Your task to perform on an android device: Open sound settings Image 0: 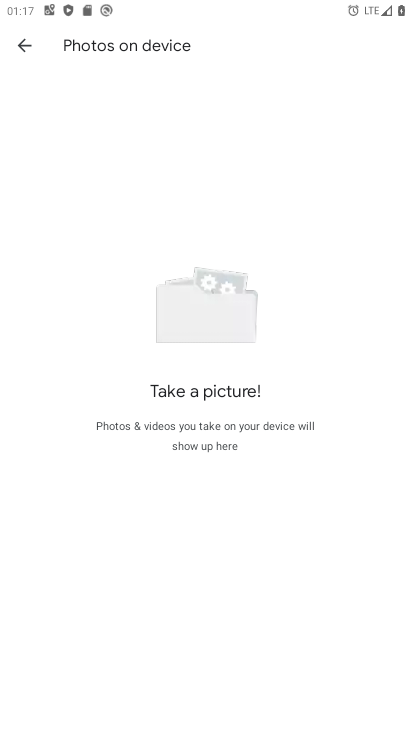
Step 0: press home button
Your task to perform on an android device: Open sound settings Image 1: 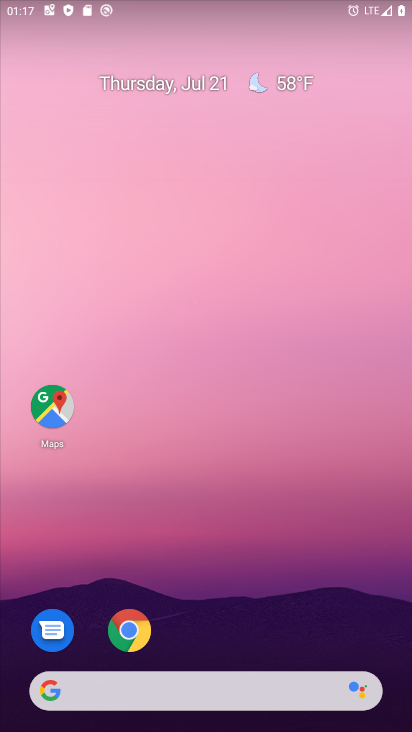
Step 1: drag from (271, 433) to (371, 6)
Your task to perform on an android device: Open sound settings Image 2: 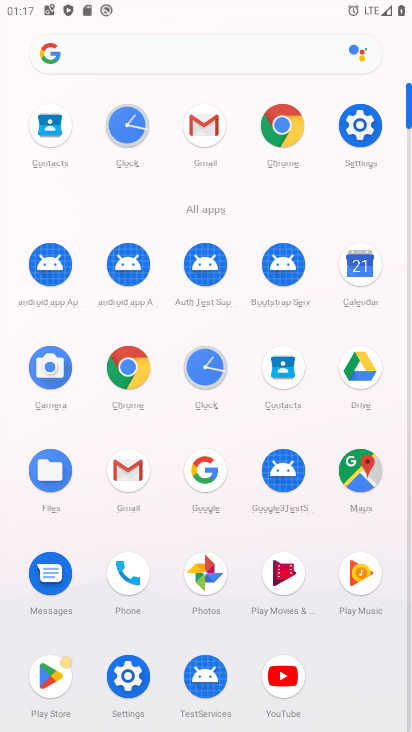
Step 2: click (362, 144)
Your task to perform on an android device: Open sound settings Image 3: 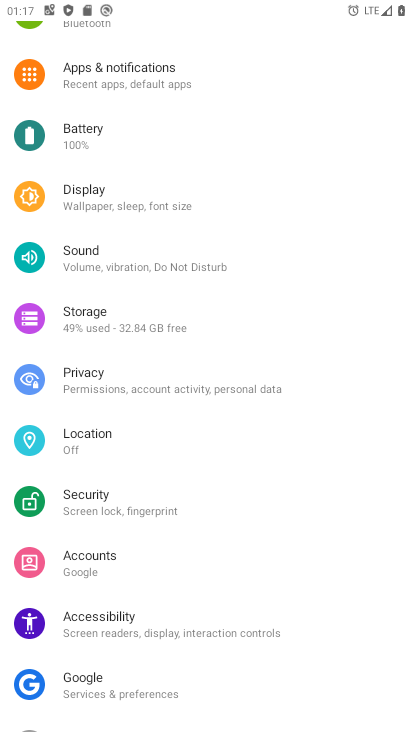
Step 3: click (195, 271)
Your task to perform on an android device: Open sound settings Image 4: 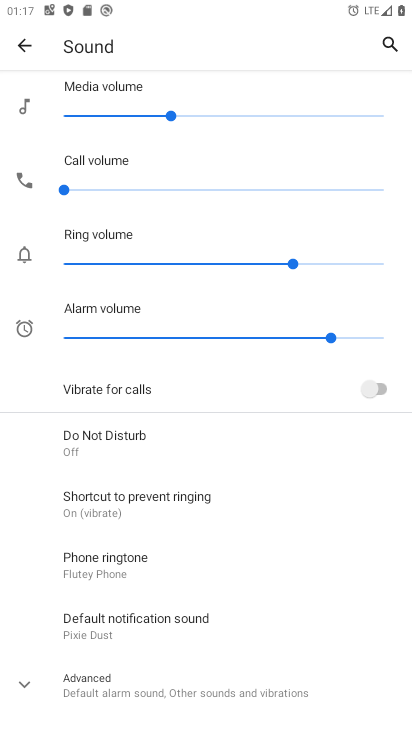
Step 4: task complete